Your task to perform on an android device: Open the calendar app, open the side menu, and click the "Day" option Image 0: 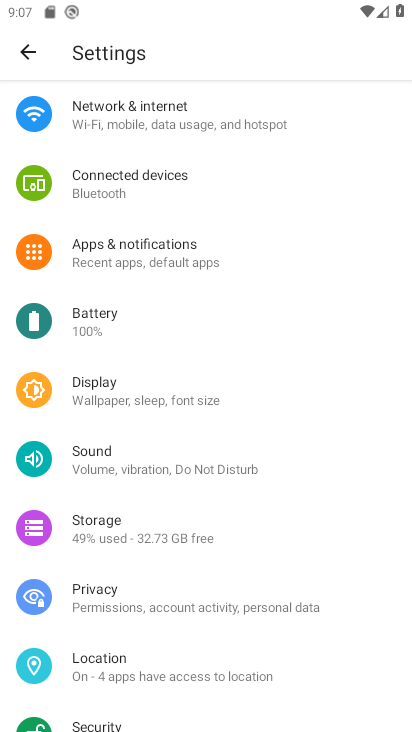
Step 0: press home button
Your task to perform on an android device: Open the calendar app, open the side menu, and click the "Day" option Image 1: 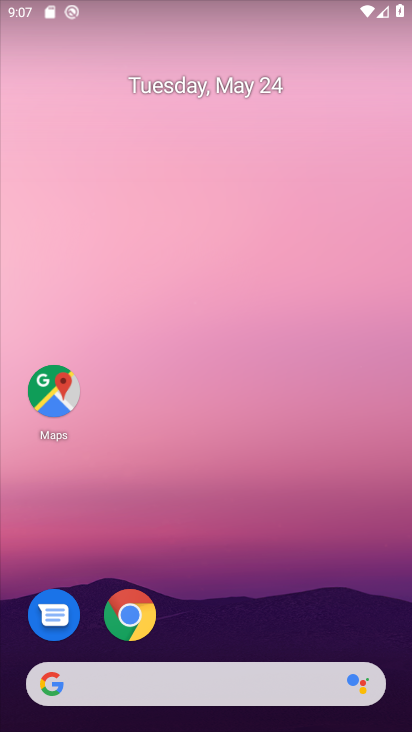
Step 1: drag from (373, 611) to (376, 299)
Your task to perform on an android device: Open the calendar app, open the side menu, and click the "Day" option Image 2: 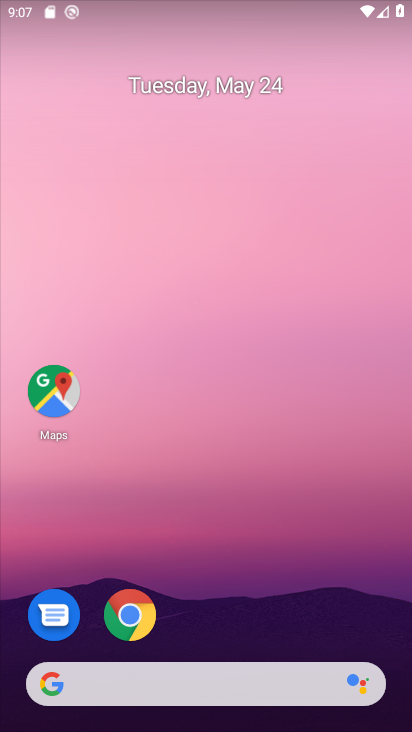
Step 2: drag from (346, 628) to (340, 277)
Your task to perform on an android device: Open the calendar app, open the side menu, and click the "Day" option Image 3: 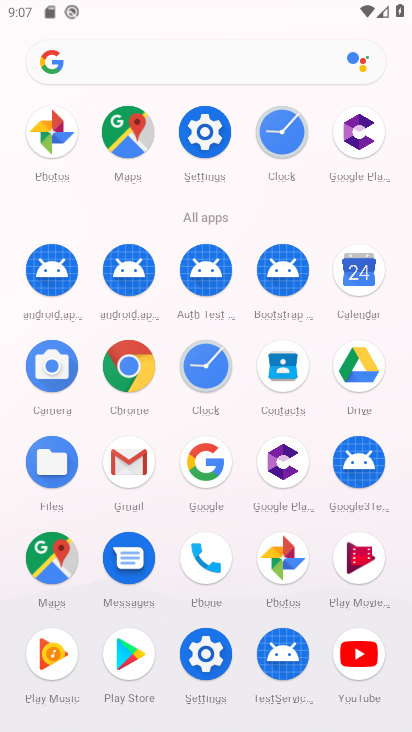
Step 3: click (369, 286)
Your task to perform on an android device: Open the calendar app, open the side menu, and click the "Day" option Image 4: 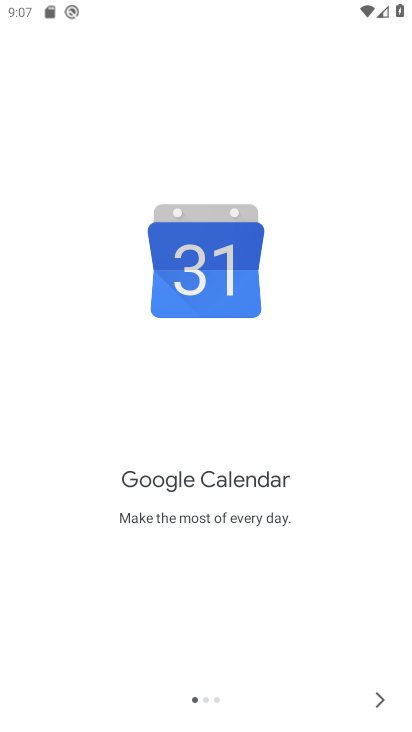
Step 4: click (381, 703)
Your task to perform on an android device: Open the calendar app, open the side menu, and click the "Day" option Image 5: 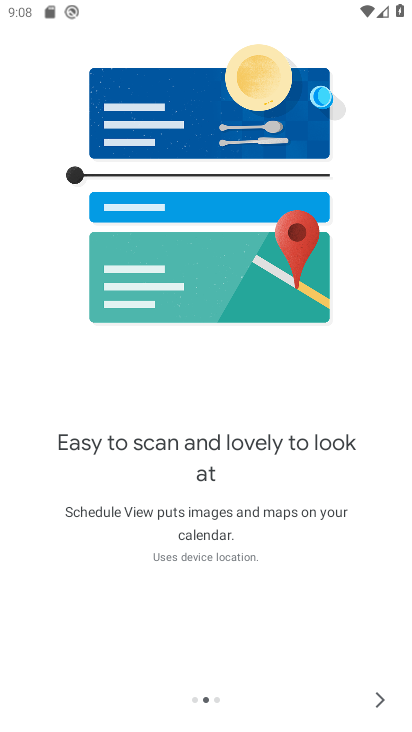
Step 5: click (381, 704)
Your task to perform on an android device: Open the calendar app, open the side menu, and click the "Day" option Image 6: 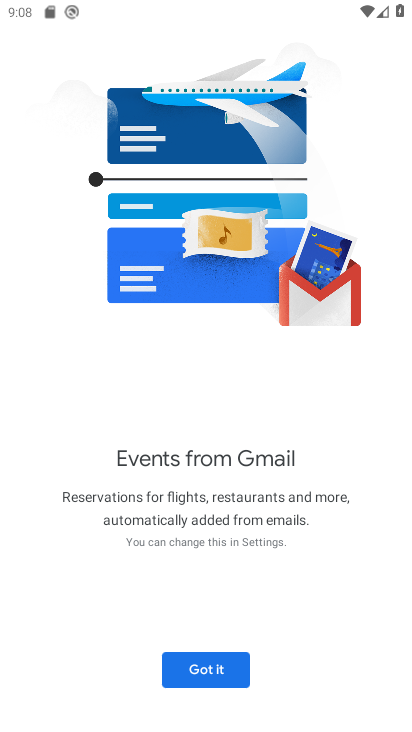
Step 6: click (239, 685)
Your task to perform on an android device: Open the calendar app, open the side menu, and click the "Day" option Image 7: 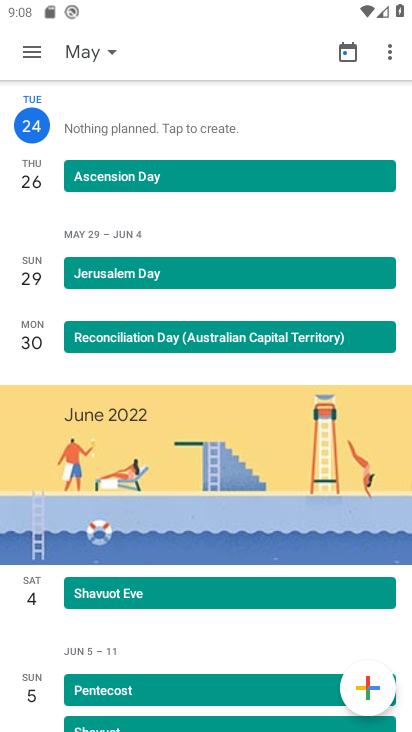
Step 7: click (42, 56)
Your task to perform on an android device: Open the calendar app, open the side menu, and click the "Day" option Image 8: 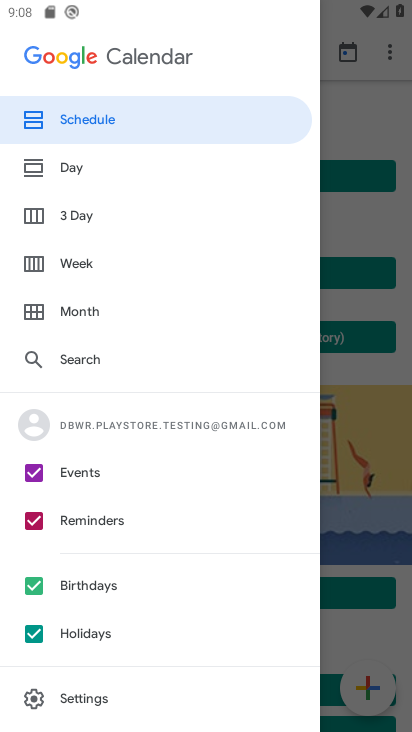
Step 8: click (111, 172)
Your task to perform on an android device: Open the calendar app, open the side menu, and click the "Day" option Image 9: 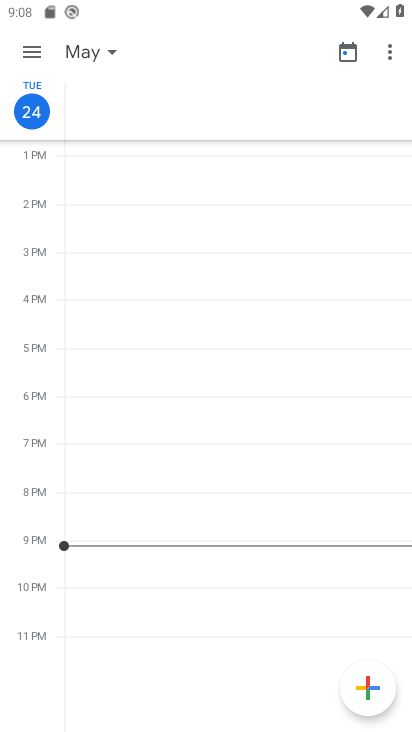
Step 9: task complete